Your task to perform on an android device: Go to Yahoo.com Image 0: 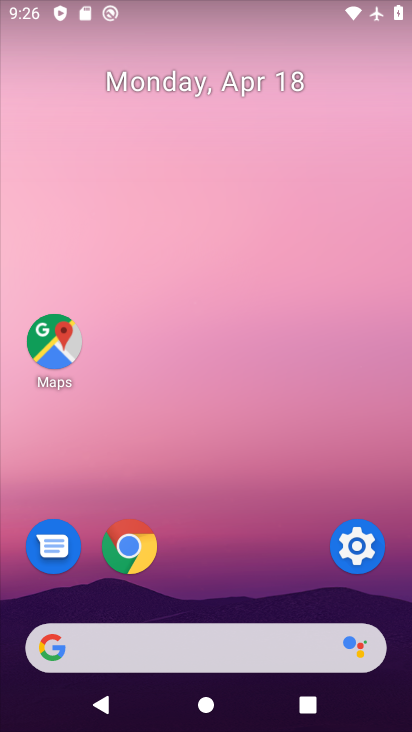
Step 0: click (157, 642)
Your task to perform on an android device: Go to Yahoo.com Image 1: 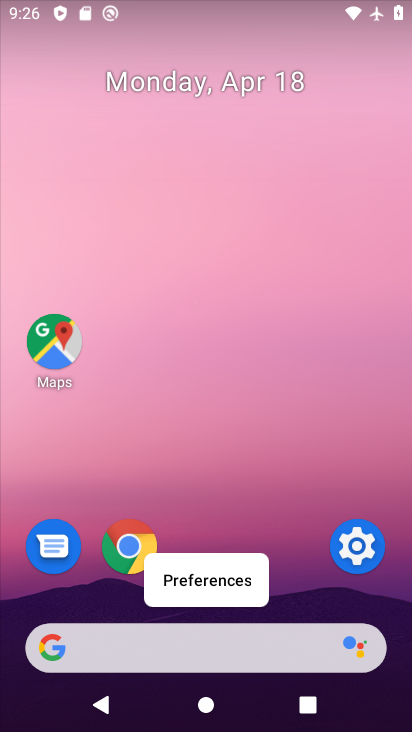
Step 1: click (134, 568)
Your task to perform on an android device: Go to Yahoo.com Image 2: 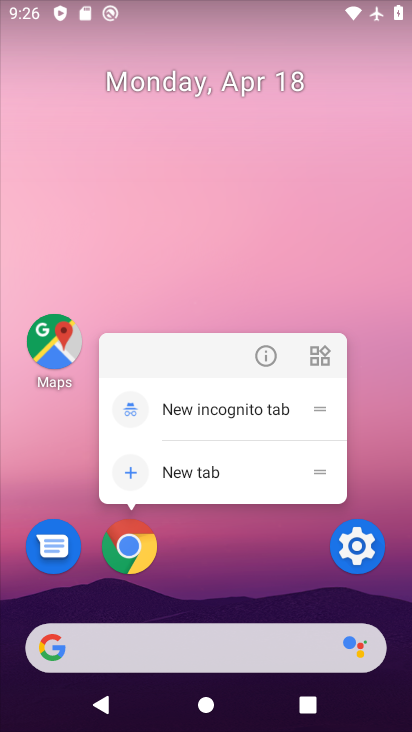
Step 2: click (132, 545)
Your task to perform on an android device: Go to Yahoo.com Image 3: 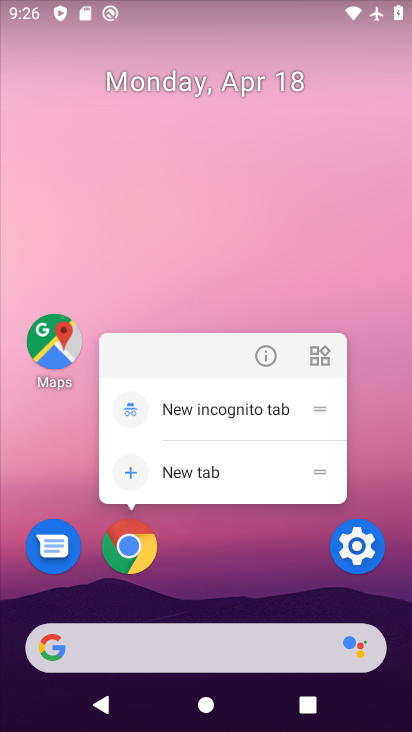
Step 3: click (132, 545)
Your task to perform on an android device: Go to Yahoo.com Image 4: 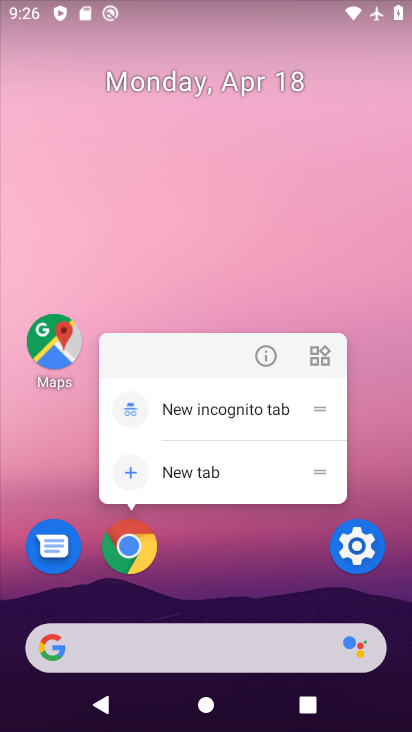
Step 4: click (136, 551)
Your task to perform on an android device: Go to Yahoo.com Image 5: 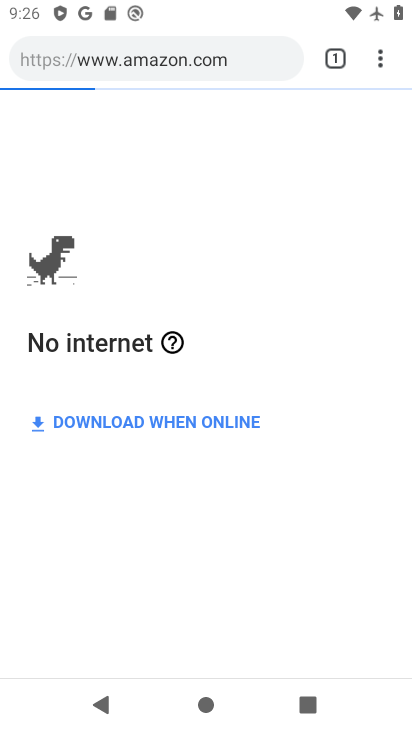
Step 5: click (222, 66)
Your task to perform on an android device: Go to Yahoo.com Image 6: 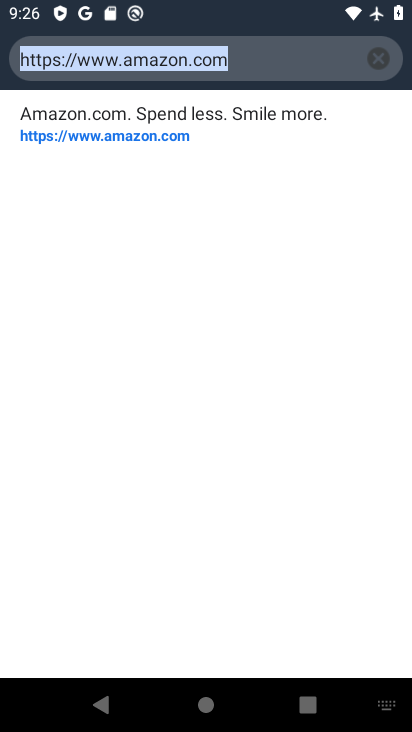
Step 6: click (377, 49)
Your task to perform on an android device: Go to Yahoo.com Image 7: 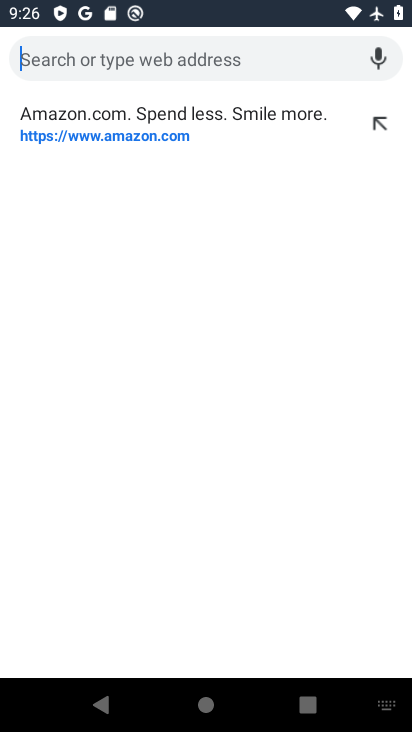
Step 7: type "yahoo.com"
Your task to perform on an android device: Go to Yahoo.com Image 8: 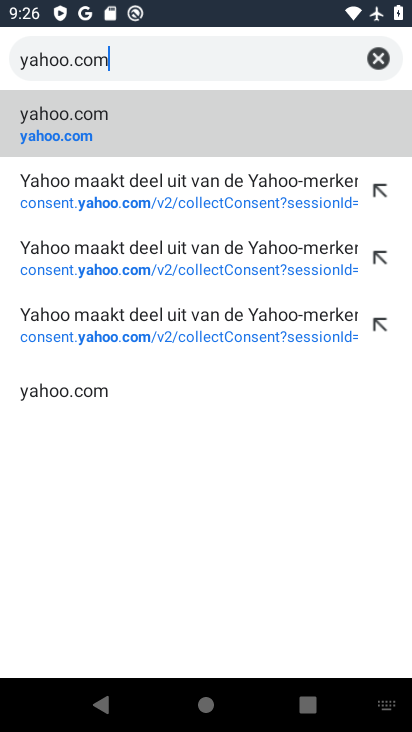
Step 8: click (106, 146)
Your task to perform on an android device: Go to Yahoo.com Image 9: 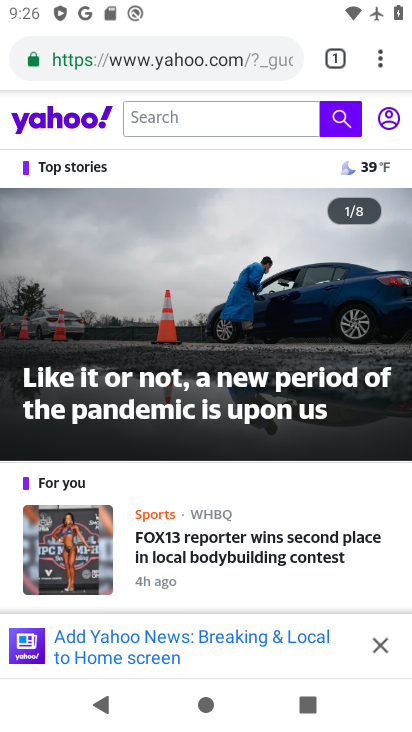
Step 9: task complete